Your task to perform on an android device: clear history in the chrome app Image 0: 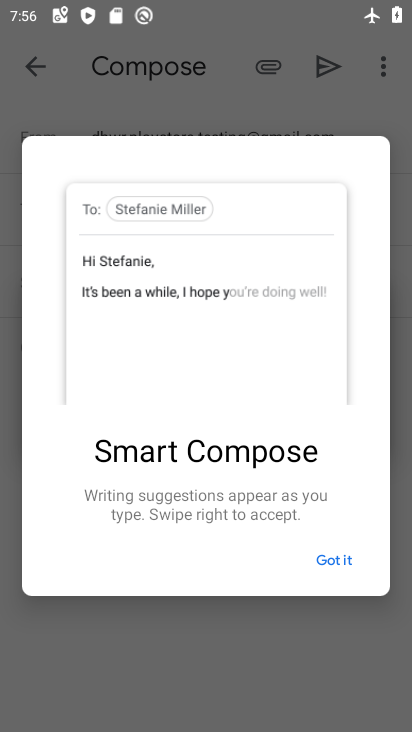
Step 0: press home button
Your task to perform on an android device: clear history in the chrome app Image 1: 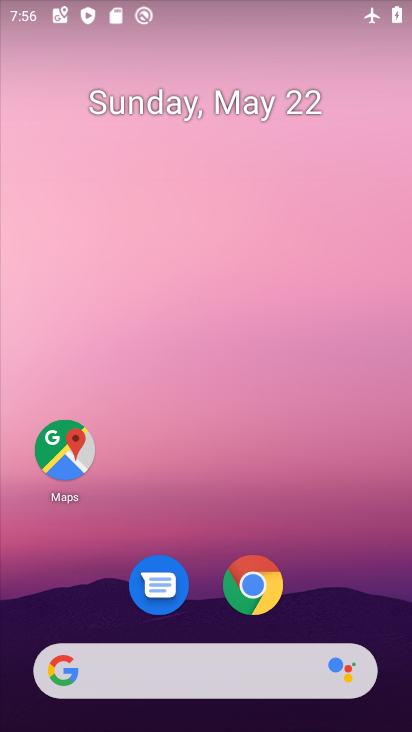
Step 1: click (258, 589)
Your task to perform on an android device: clear history in the chrome app Image 2: 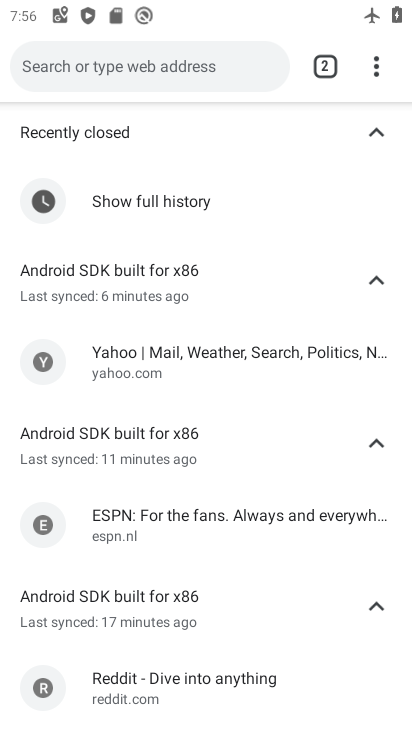
Step 2: click (378, 70)
Your task to perform on an android device: clear history in the chrome app Image 3: 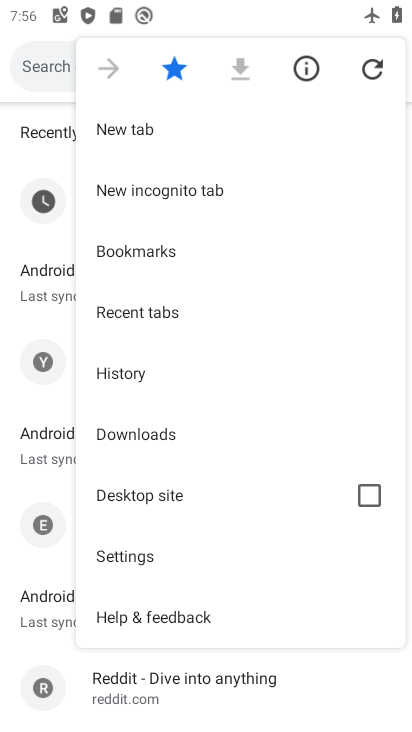
Step 3: click (143, 372)
Your task to perform on an android device: clear history in the chrome app Image 4: 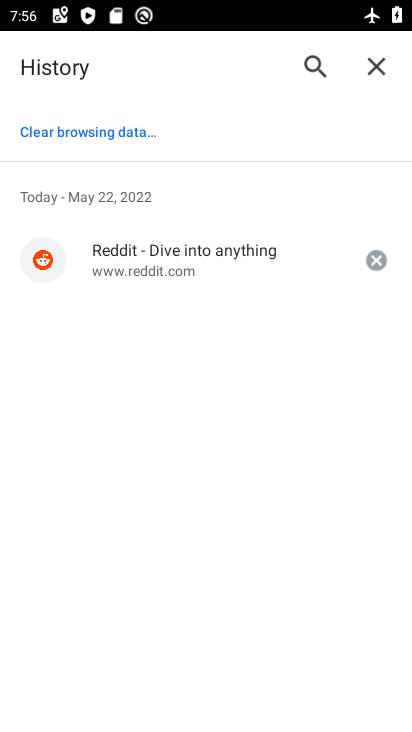
Step 4: click (118, 117)
Your task to perform on an android device: clear history in the chrome app Image 5: 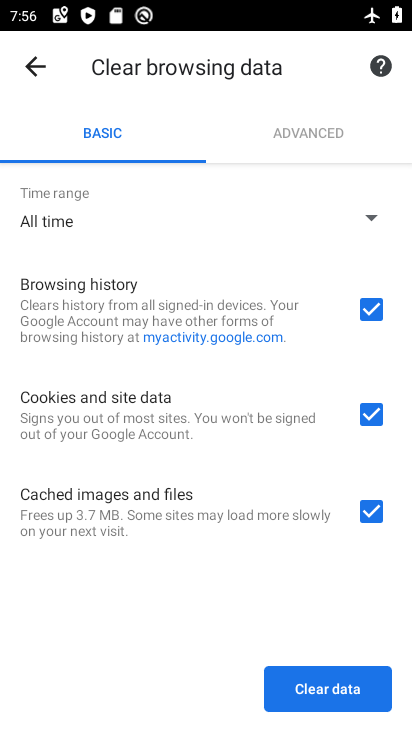
Step 5: click (331, 684)
Your task to perform on an android device: clear history in the chrome app Image 6: 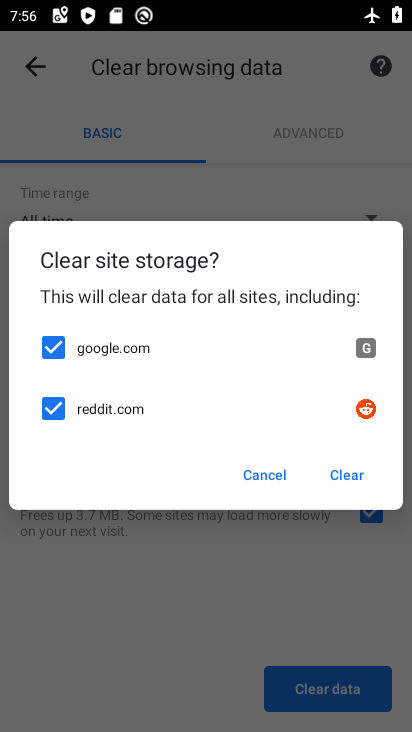
Step 6: click (344, 472)
Your task to perform on an android device: clear history in the chrome app Image 7: 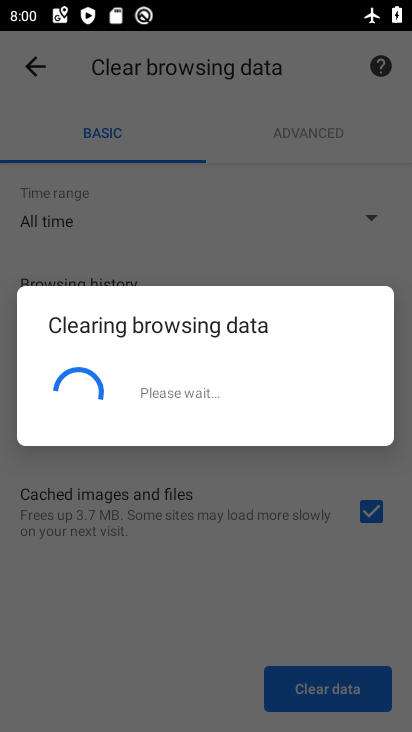
Step 7: task complete